Your task to perform on an android device: Go to Maps Image 0: 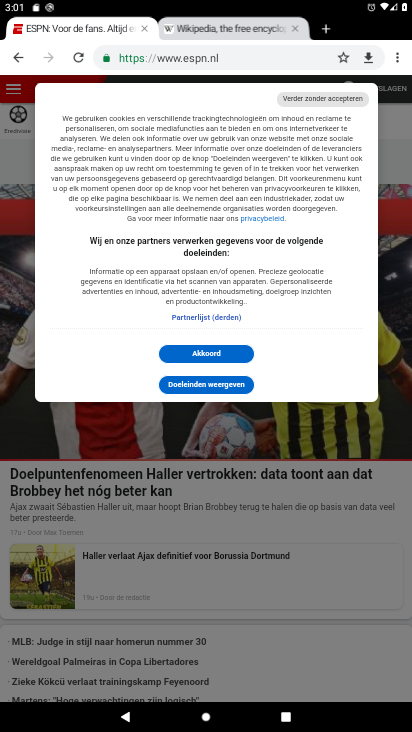
Step 0: press home button
Your task to perform on an android device: Go to Maps Image 1: 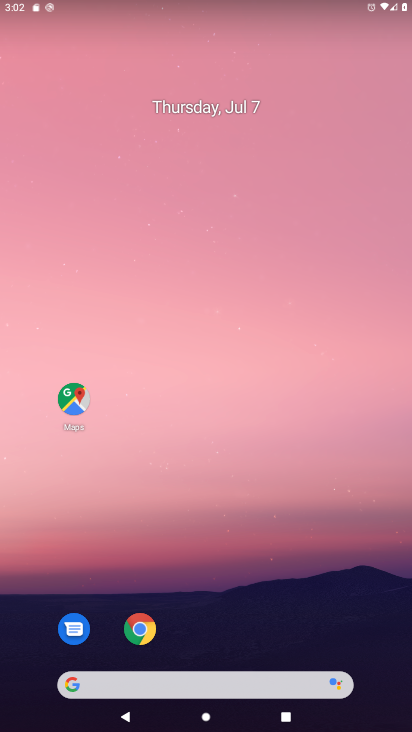
Step 1: click (69, 391)
Your task to perform on an android device: Go to Maps Image 2: 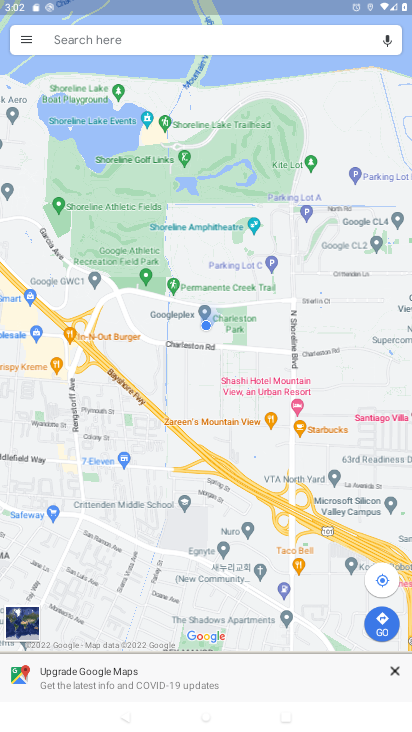
Step 2: task complete